Your task to perform on an android device: Open Chrome and go to settings Image 0: 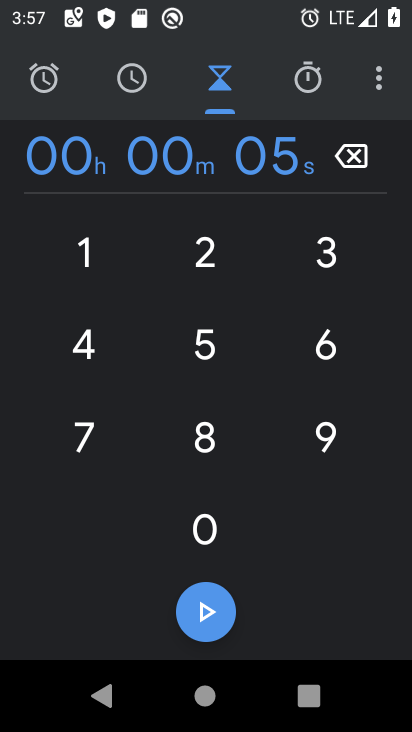
Step 0: press home button
Your task to perform on an android device: Open Chrome and go to settings Image 1: 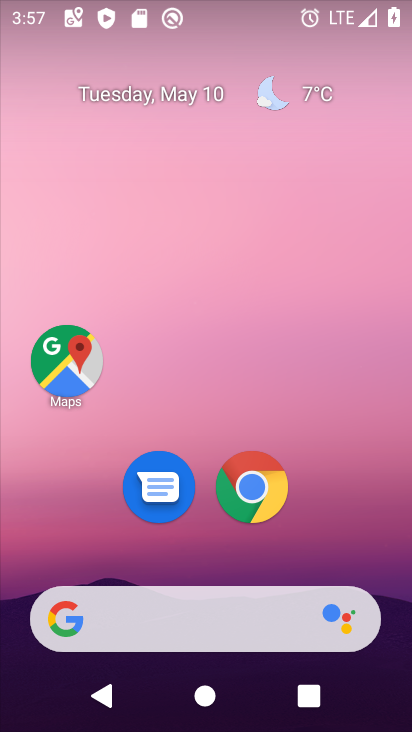
Step 1: click (255, 484)
Your task to perform on an android device: Open Chrome and go to settings Image 2: 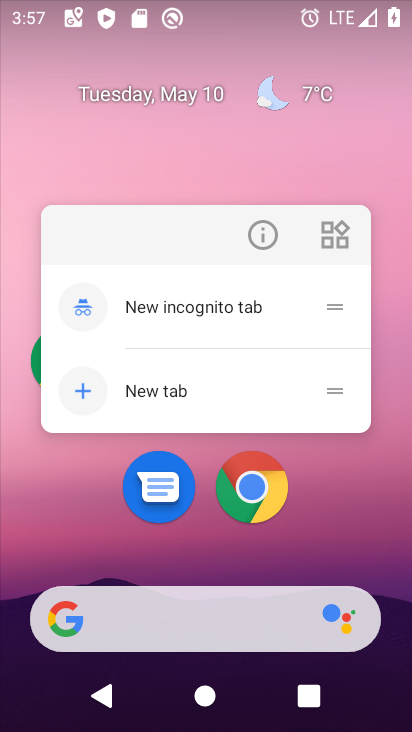
Step 2: click (256, 487)
Your task to perform on an android device: Open Chrome and go to settings Image 3: 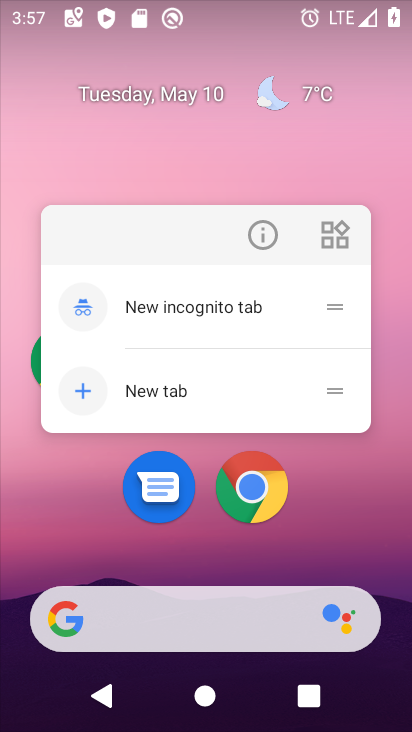
Step 3: click (256, 487)
Your task to perform on an android device: Open Chrome and go to settings Image 4: 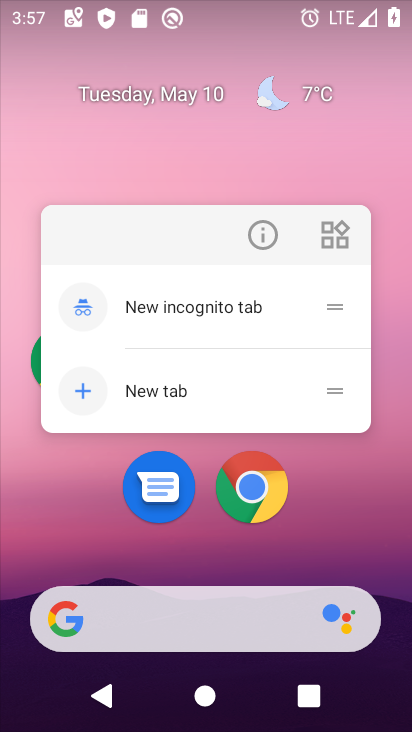
Step 4: drag from (348, 545) to (296, 71)
Your task to perform on an android device: Open Chrome and go to settings Image 5: 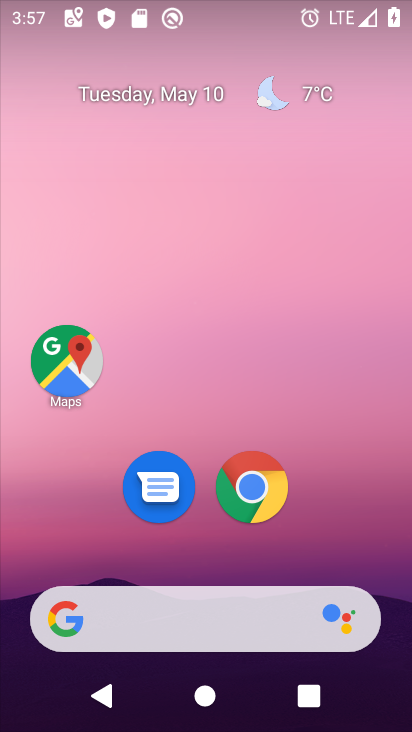
Step 5: drag from (354, 510) to (314, 38)
Your task to perform on an android device: Open Chrome and go to settings Image 6: 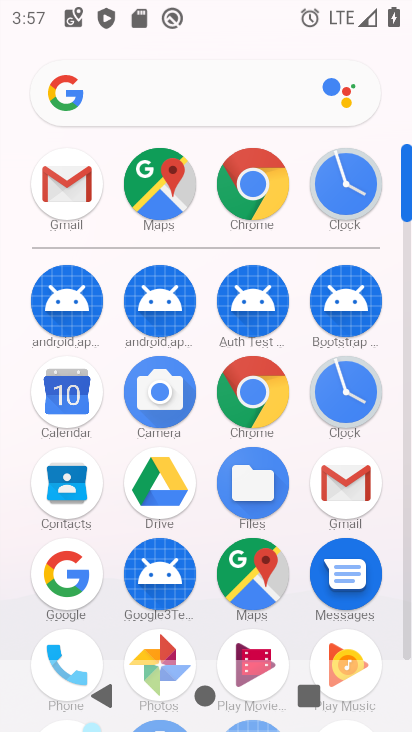
Step 6: click (253, 391)
Your task to perform on an android device: Open Chrome and go to settings Image 7: 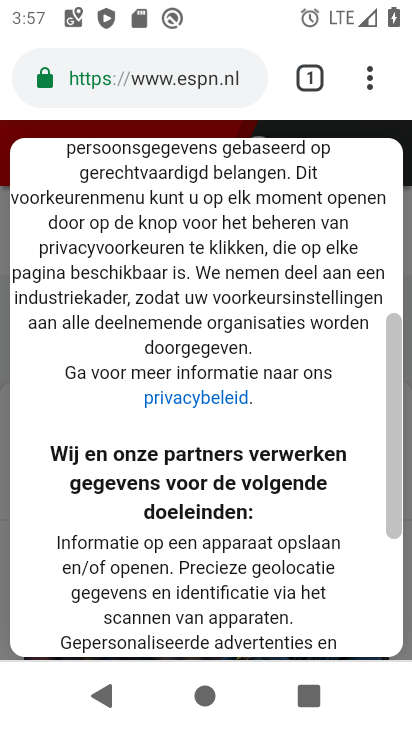
Step 7: click (252, 397)
Your task to perform on an android device: Open Chrome and go to settings Image 8: 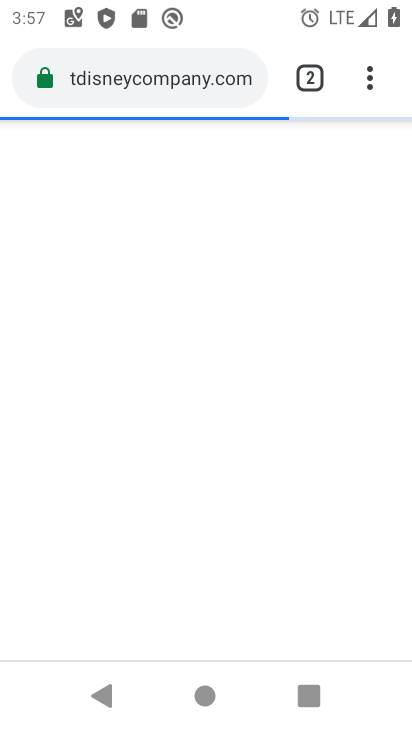
Step 8: task complete